Your task to perform on an android device: open app "Google Duo" (install if not already installed) Image 0: 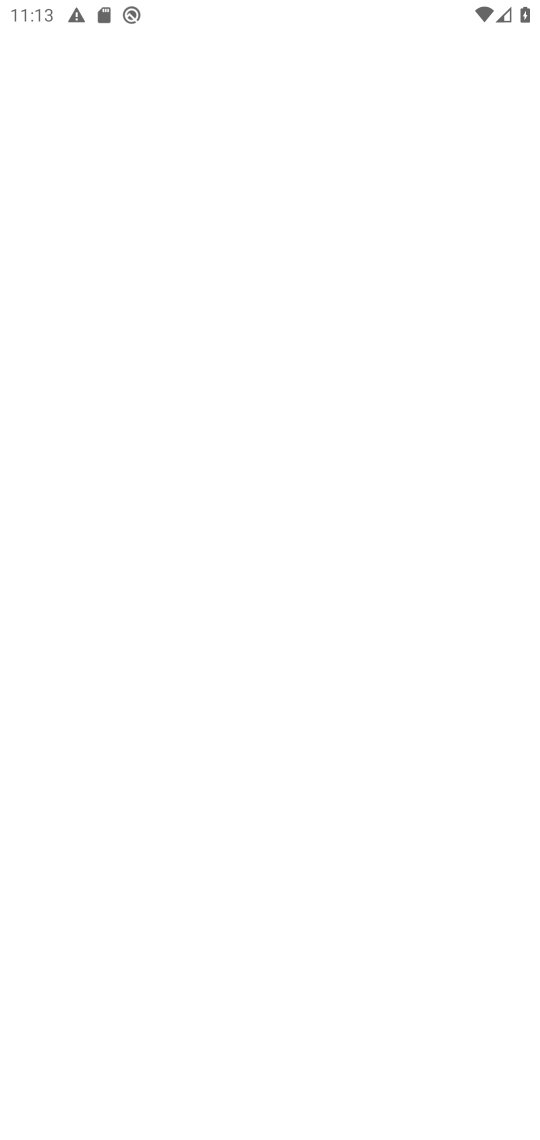
Step 0: press home button
Your task to perform on an android device: open app "Google Duo" (install if not already installed) Image 1: 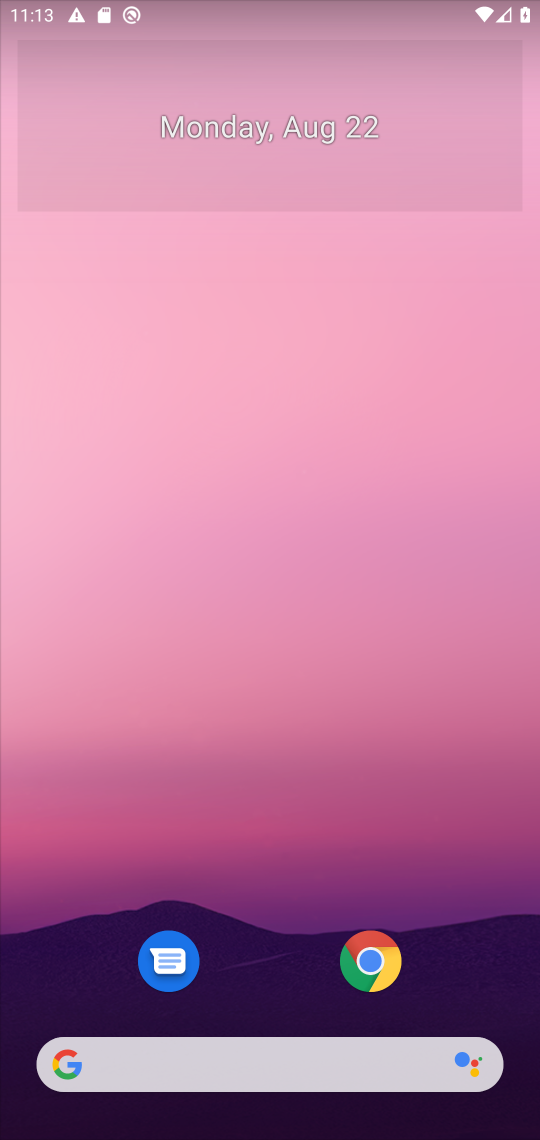
Step 1: drag from (257, 1012) to (312, 76)
Your task to perform on an android device: open app "Google Duo" (install if not already installed) Image 2: 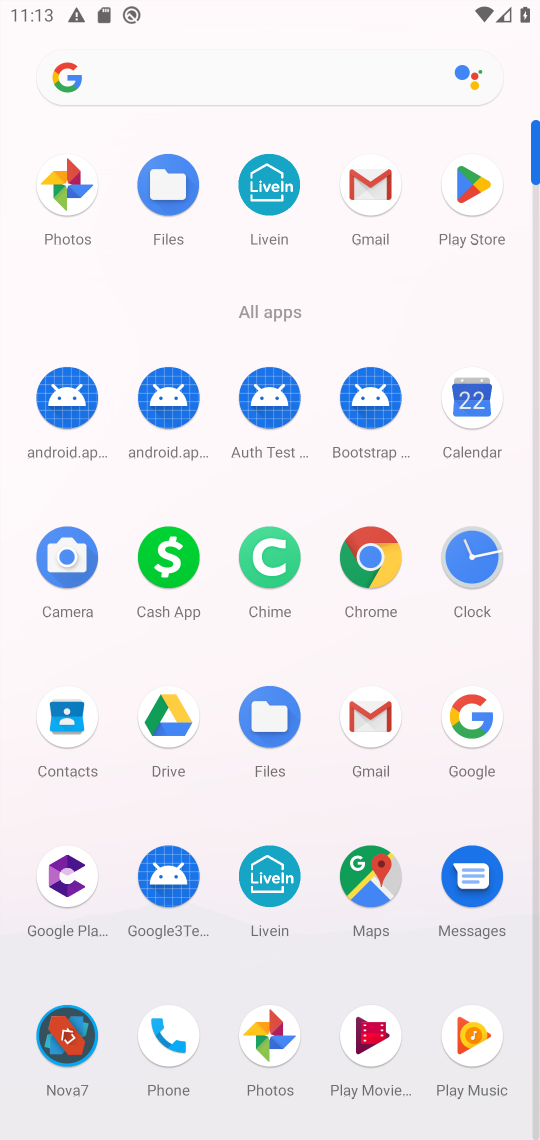
Step 2: click (445, 201)
Your task to perform on an android device: open app "Google Duo" (install if not already installed) Image 3: 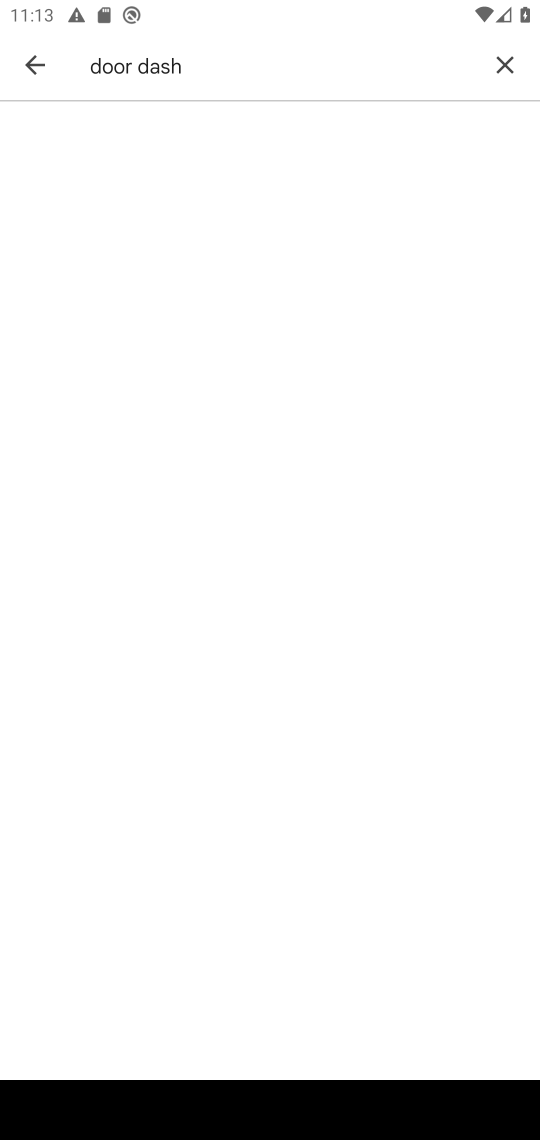
Step 3: click (514, 59)
Your task to perform on an android device: open app "Google Duo" (install if not already installed) Image 4: 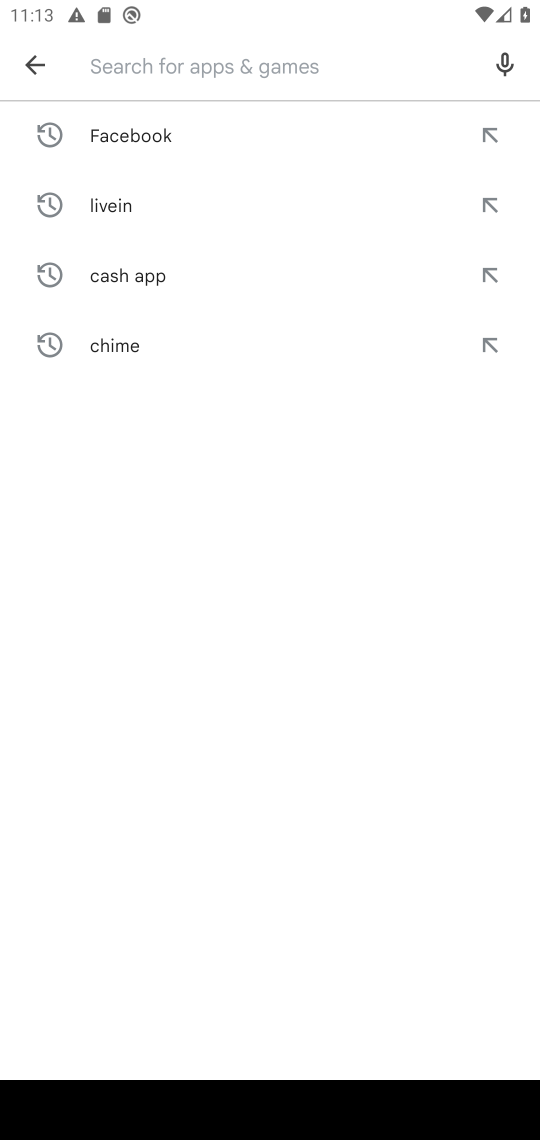
Step 4: type "google duo"
Your task to perform on an android device: open app "Google Duo" (install if not already installed) Image 5: 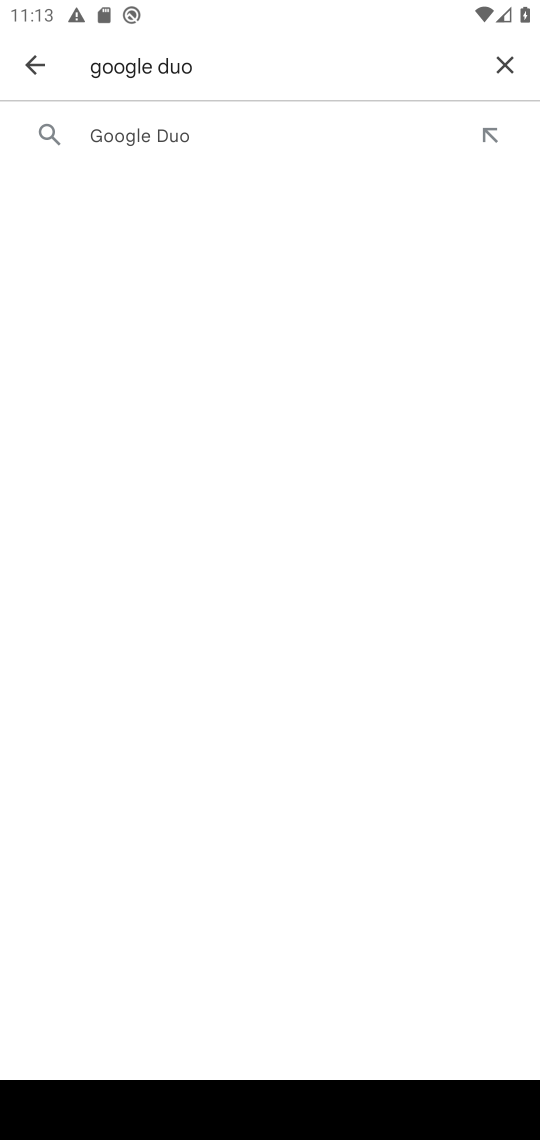
Step 5: click (246, 106)
Your task to perform on an android device: open app "Google Duo" (install if not already installed) Image 6: 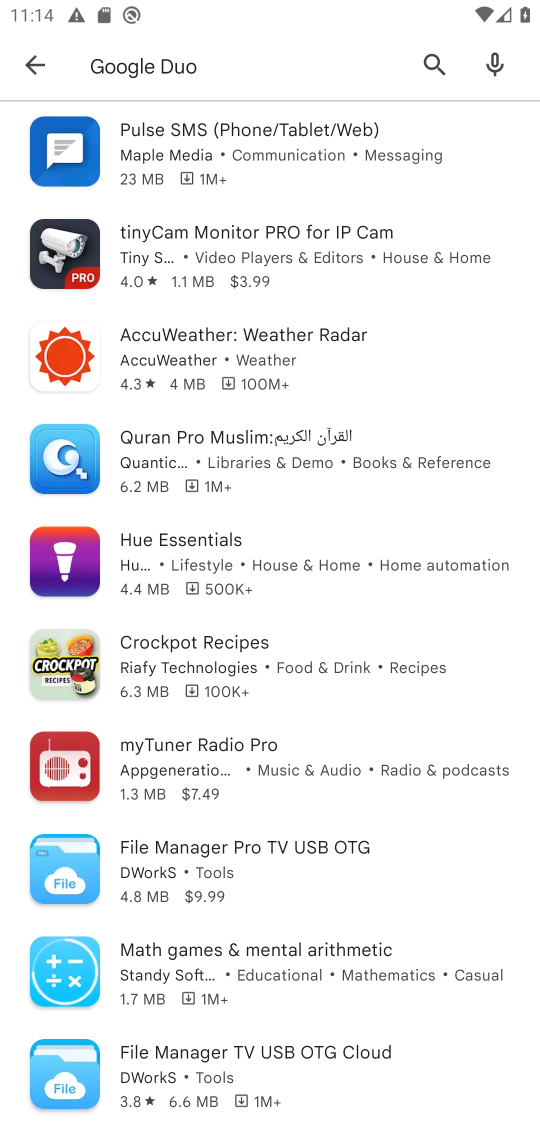
Step 6: task complete